Your task to perform on an android device: Search for seafood restaurants on Google Maps Image 0: 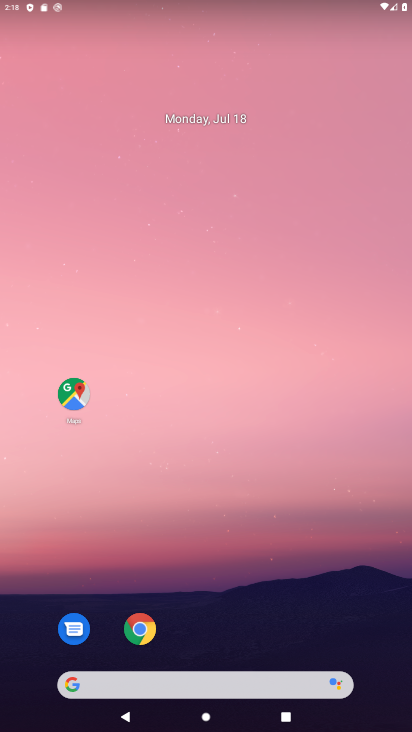
Step 0: click (68, 394)
Your task to perform on an android device: Search for seafood restaurants on Google Maps Image 1: 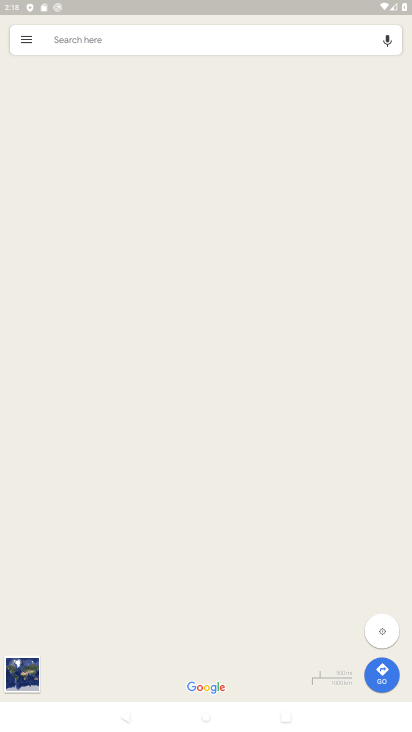
Step 1: click (143, 48)
Your task to perform on an android device: Search for seafood restaurants on Google Maps Image 2: 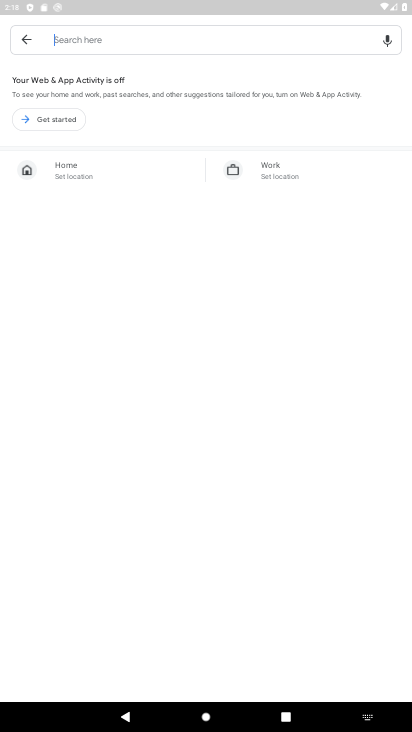
Step 2: click (52, 114)
Your task to perform on an android device: Search for seafood restaurants on Google Maps Image 3: 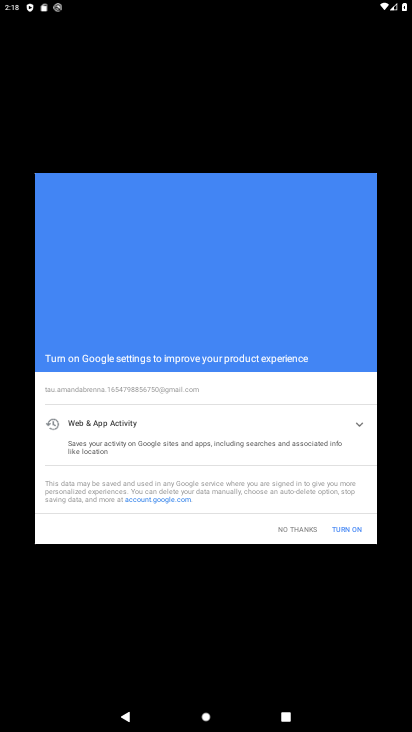
Step 3: click (352, 529)
Your task to perform on an android device: Search for seafood restaurants on Google Maps Image 4: 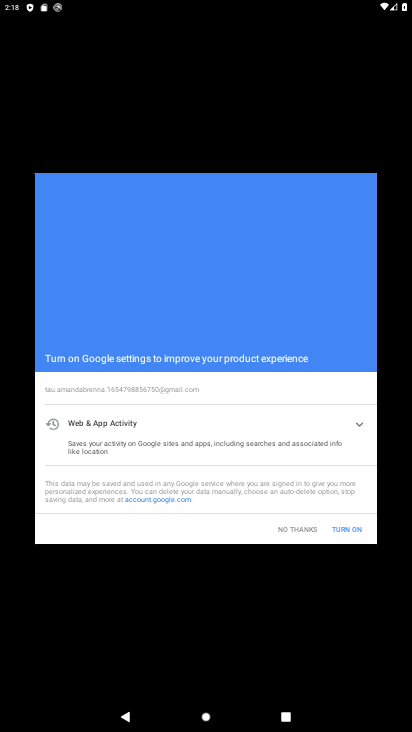
Step 4: click (352, 529)
Your task to perform on an android device: Search for seafood restaurants on Google Maps Image 5: 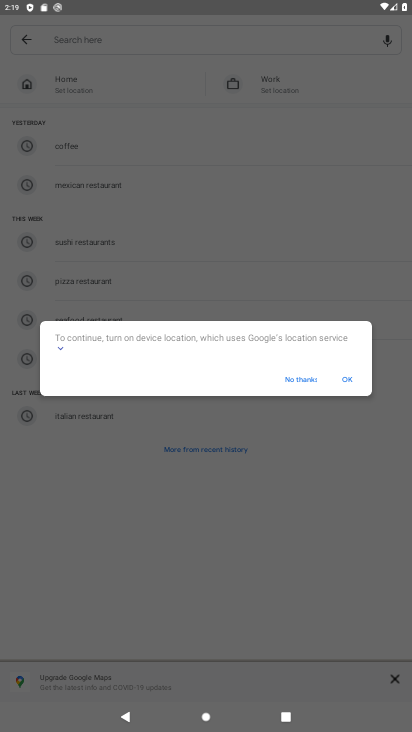
Step 5: click (345, 379)
Your task to perform on an android device: Search for seafood restaurants on Google Maps Image 6: 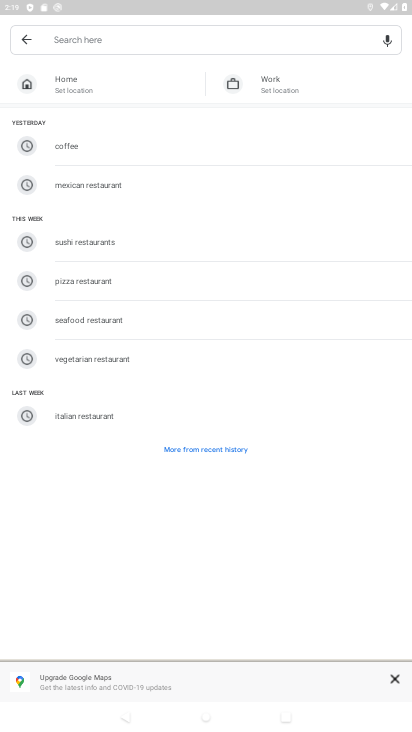
Step 6: click (104, 323)
Your task to perform on an android device: Search for seafood restaurants on Google Maps Image 7: 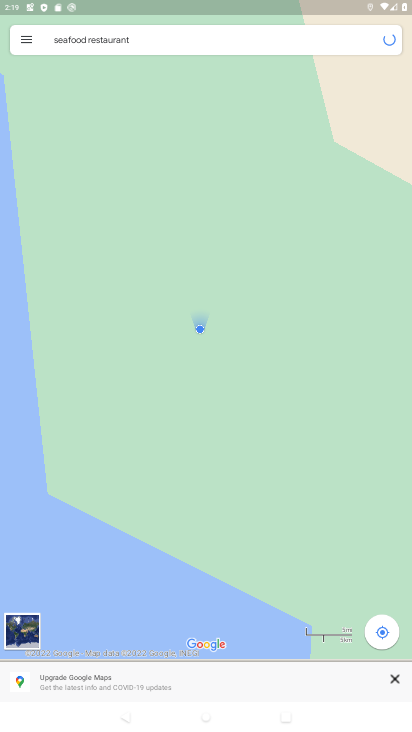
Step 7: task complete